Your task to perform on an android device: What's on my calendar today? Image 0: 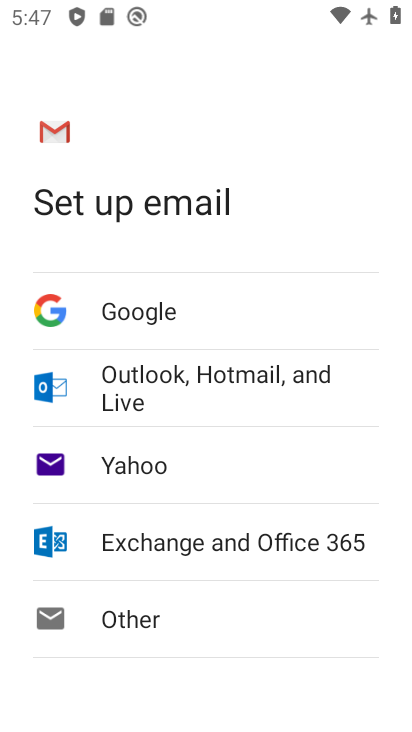
Step 0: press home button
Your task to perform on an android device: What's on my calendar today? Image 1: 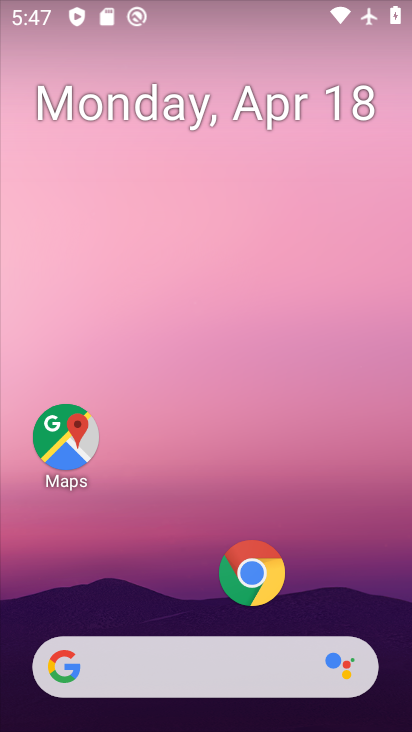
Step 1: drag from (175, 473) to (296, 17)
Your task to perform on an android device: What's on my calendar today? Image 2: 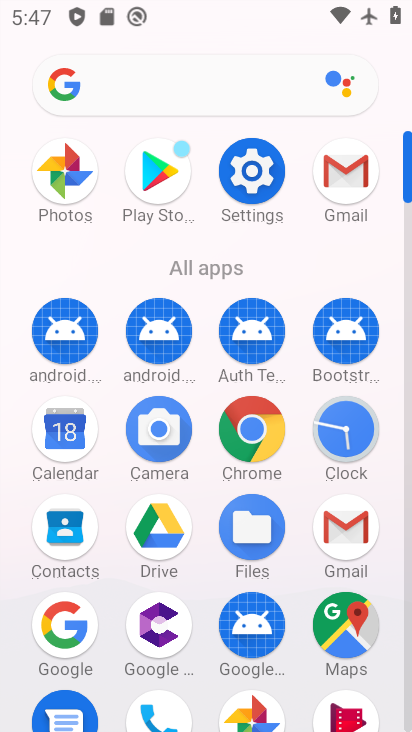
Step 2: click (69, 447)
Your task to perform on an android device: What's on my calendar today? Image 3: 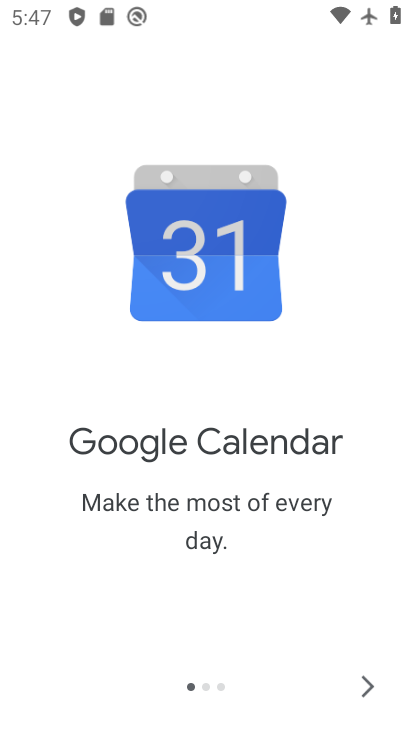
Step 3: click (362, 687)
Your task to perform on an android device: What's on my calendar today? Image 4: 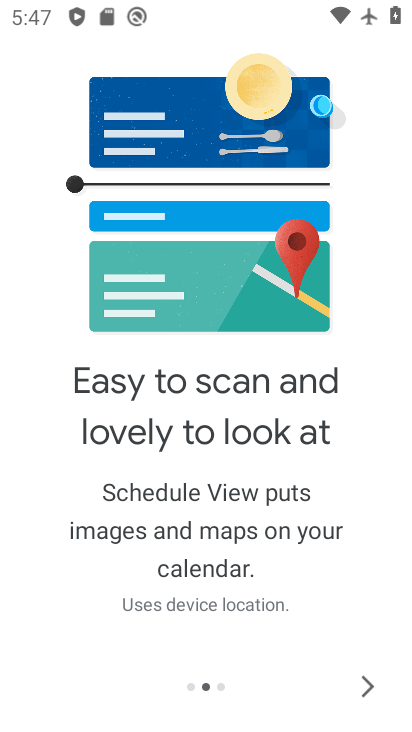
Step 4: click (359, 690)
Your task to perform on an android device: What's on my calendar today? Image 5: 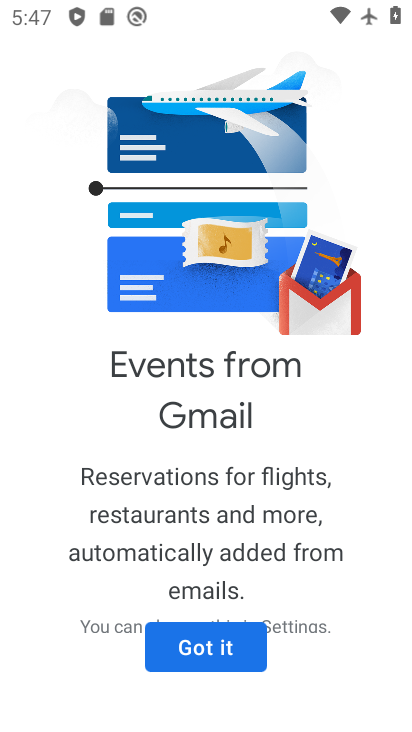
Step 5: click (226, 651)
Your task to perform on an android device: What's on my calendar today? Image 6: 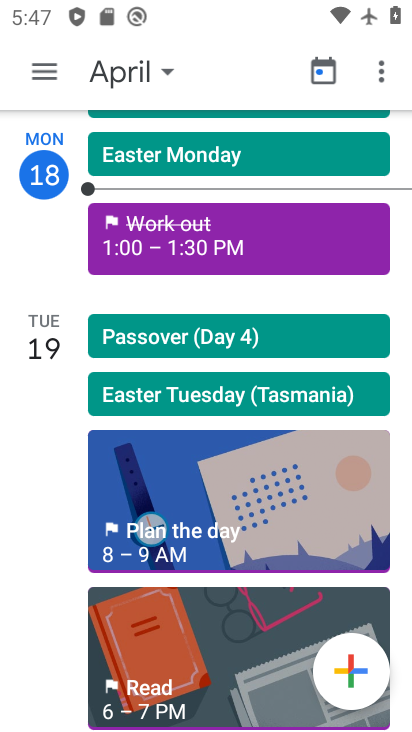
Step 6: click (36, 72)
Your task to perform on an android device: What's on my calendar today? Image 7: 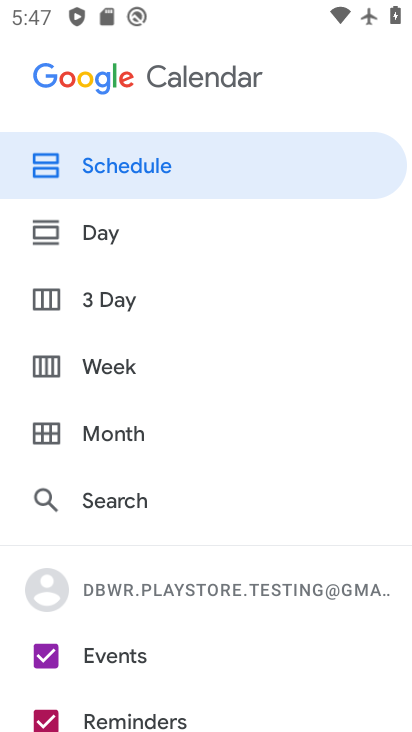
Step 7: click (106, 240)
Your task to perform on an android device: What's on my calendar today? Image 8: 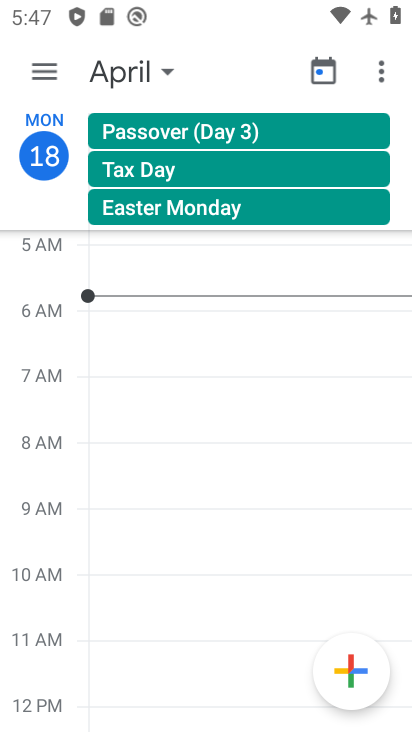
Step 8: task complete